Your task to perform on an android device: stop showing notifications on the lock screen Image 0: 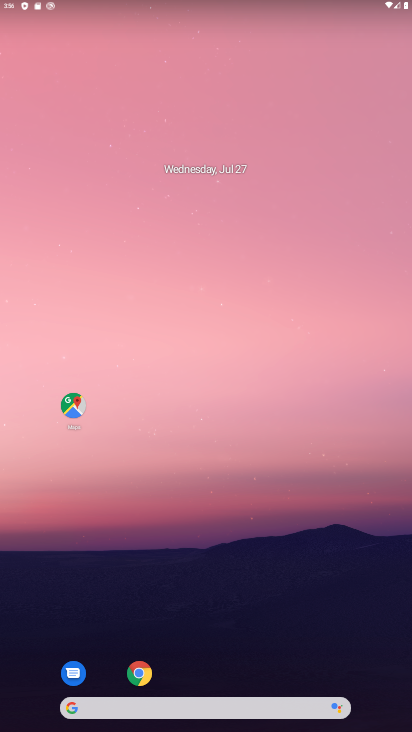
Step 0: drag from (335, 565) to (334, 107)
Your task to perform on an android device: stop showing notifications on the lock screen Image 1: 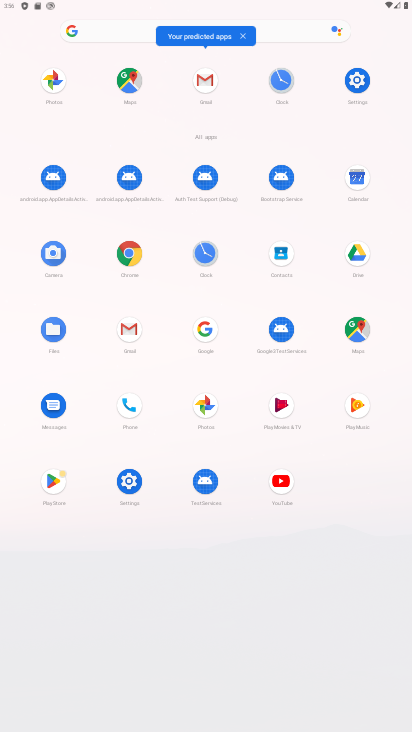
Step 1: click (129, 483)
Your task to perform on an android device: stop showing notifications on the lock screen Image 2: 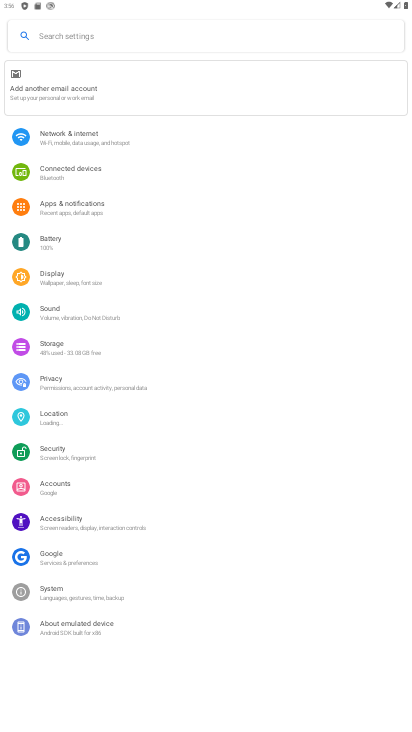
Step 2: click (90, 213)
Your task to perform on an android device: stop showing notifications on the lock screen Image 3: 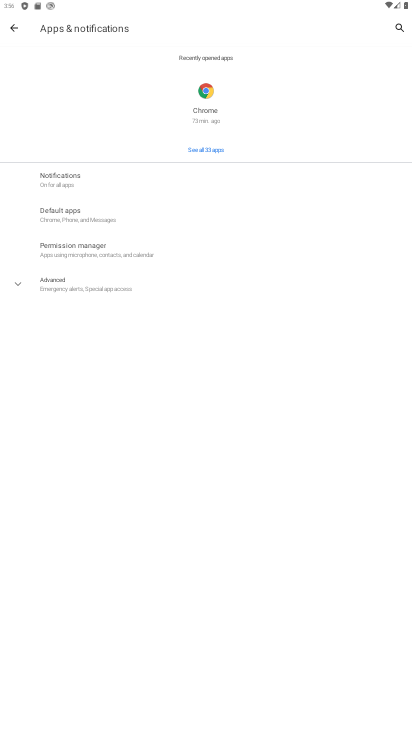
Step 3: click (92, 178)
Your task to perform on an android device: stop showing notifications on the lock screen Image 4: 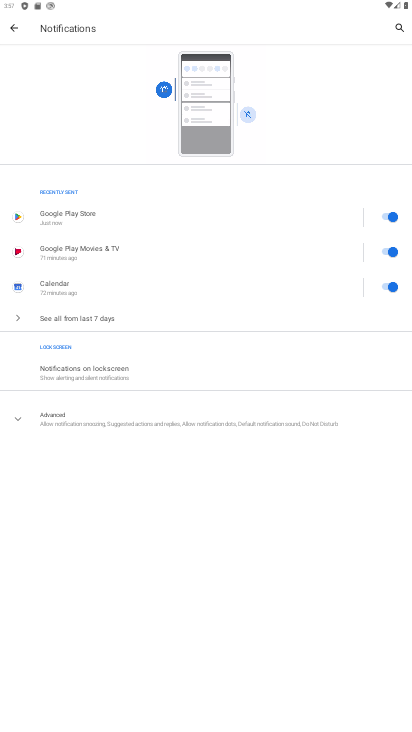
Step 4: click (151, 375)
Your task to perform on an android device: stop showing notifications on the lock screen Image 5: 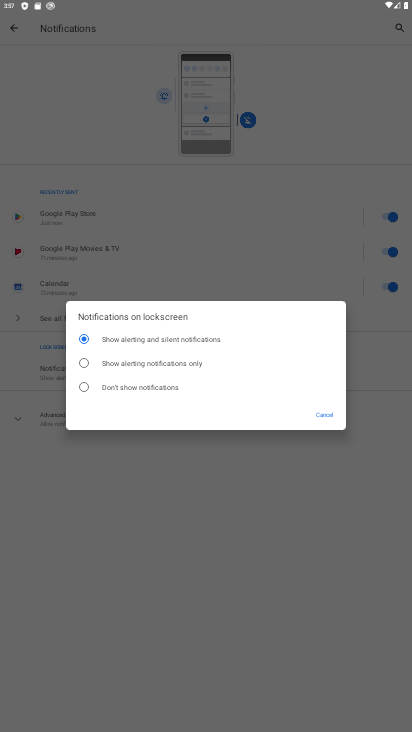
Step 5: click (145, 379)
Your task to perform on an android device: stop showing notifications on the lock screen Image 6: 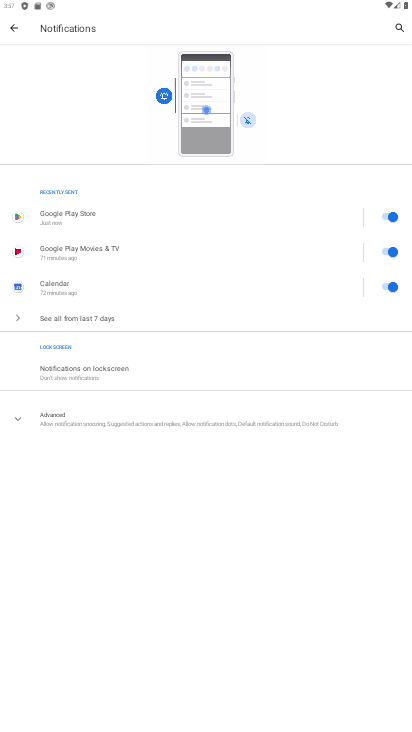
Step 6: task complete